Your task to perform on an android device: Search for sushi restaurants on Maps Image 0: 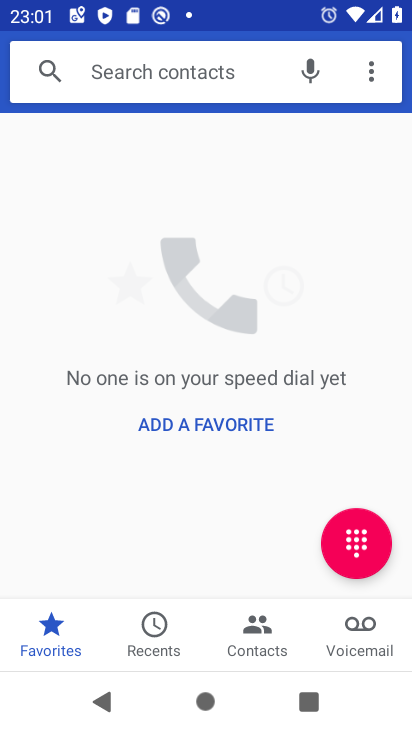
Step 0: click (332, 549)
Your task to perform on an android device: Search for sushi restaurants on Maps Image 1: 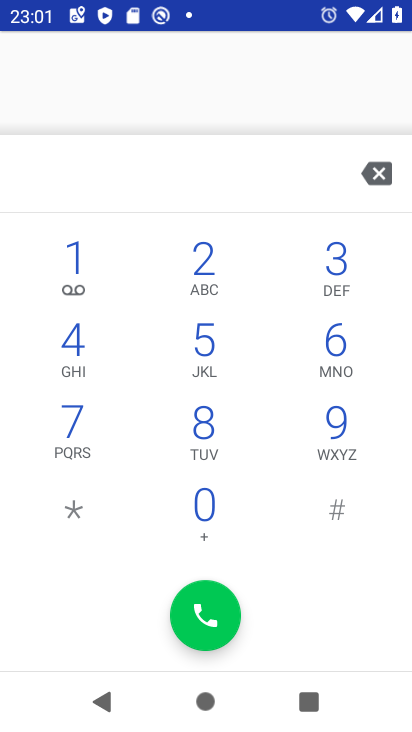
Step 1: press home button
Your task to perform on an android device: Search for sushi restaurants on Maps Image 2: 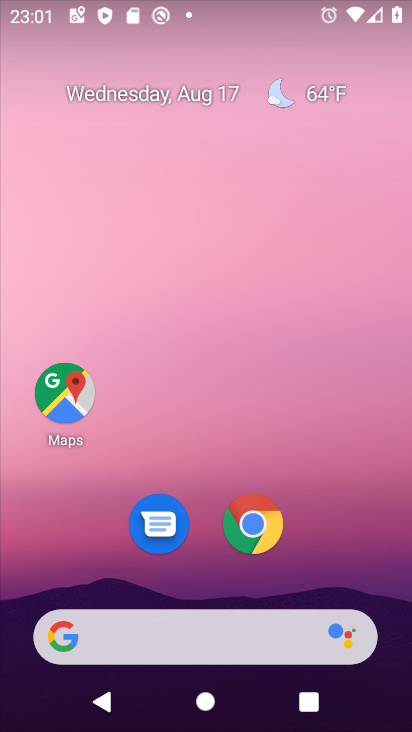
Step 2: click (67, 398)
Your task to perform on an android device: Search for sushi restaurants on Maps Image 3: 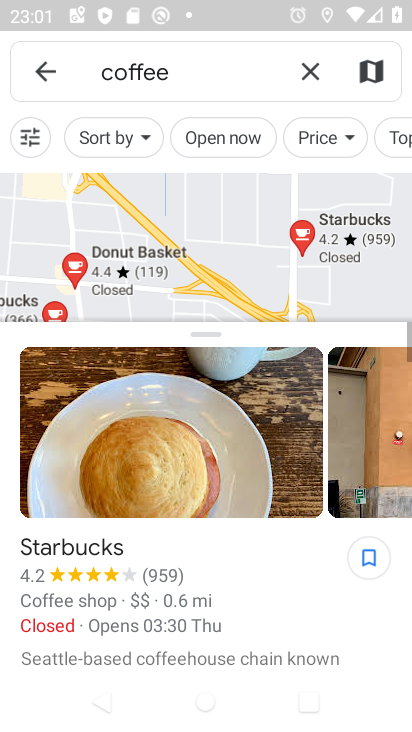
Step 3: click (42, 63)
Your task to perform on an android device: Search for sushi restaurants on Maps Image 4: 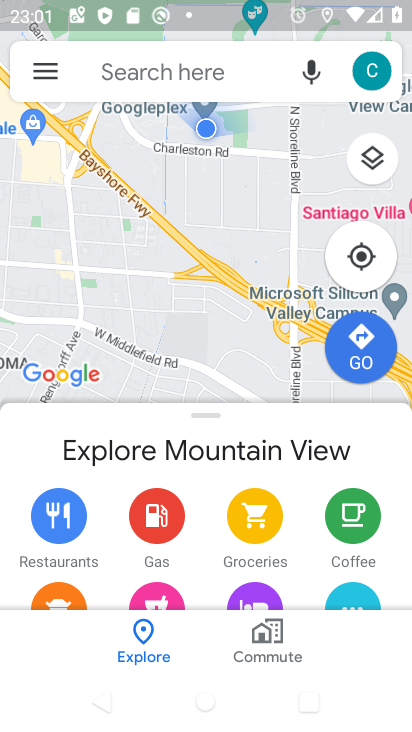
Step 4: click (126, 76)
Your task to perform on an android device: Search for sushi restaurants on Maps Image 5: 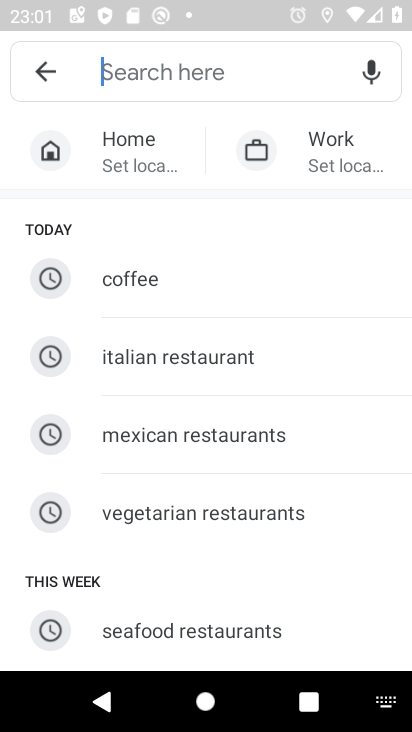
Step 5: drag from (174, 429) to (208, 218)
Your task to perform on an android device: Search for sushi restaurants on Maps Image 6: 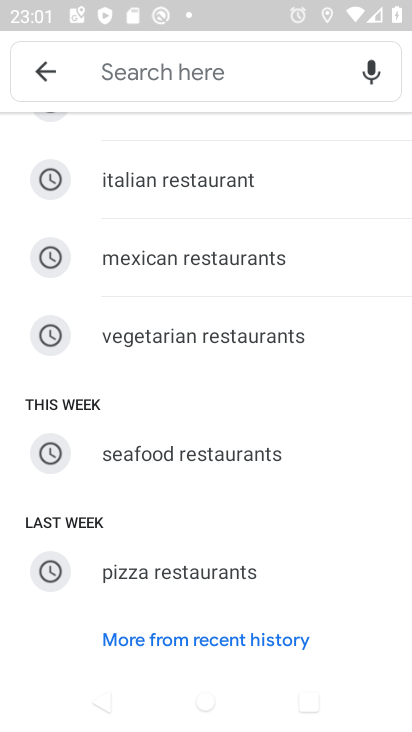
Step 6: drag from (233, 219) to (226, 476)
Your task to perform on an android device: Search for sushi restaurants on Maps Image 7: 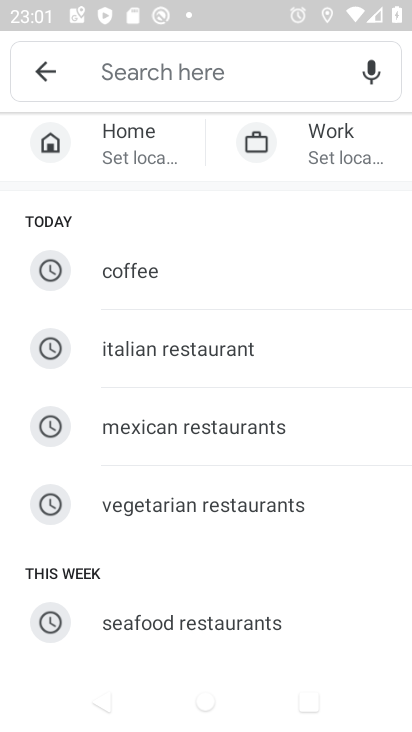
Step 7: click (235, 65)
Your task to perform on an android device: Search for sushi restaurants on Maps Image 8: 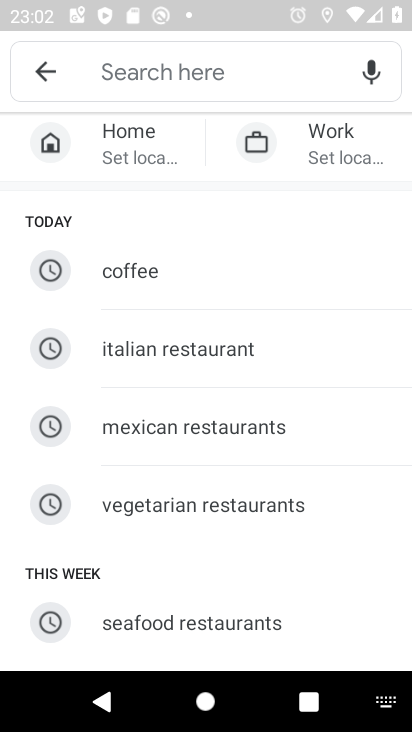
Step 8: type "sushi restaurats"
Your task to perform on an android device: Search for sushi restaurants on Maps Image 9: 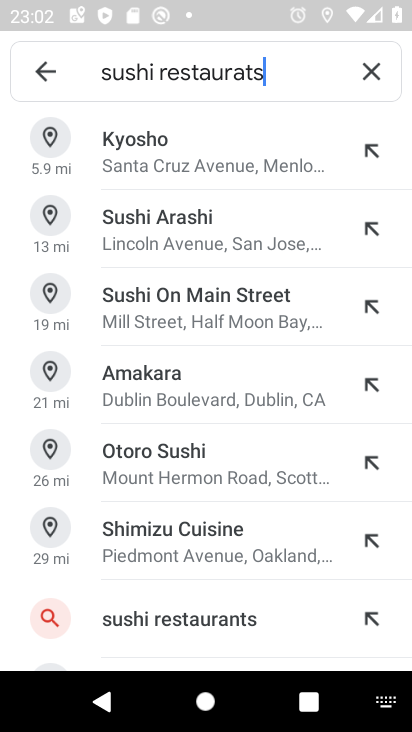
Step 9: click (176, 610)
Your task to perform on an android device: Search for sushi restaurants on Maps Image 10: 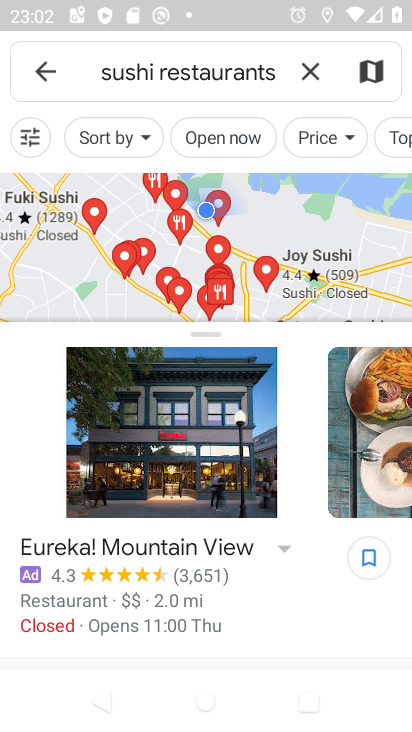
Step 10: task complete